Your task to perform on an android device: Open privacy settings Image 0: 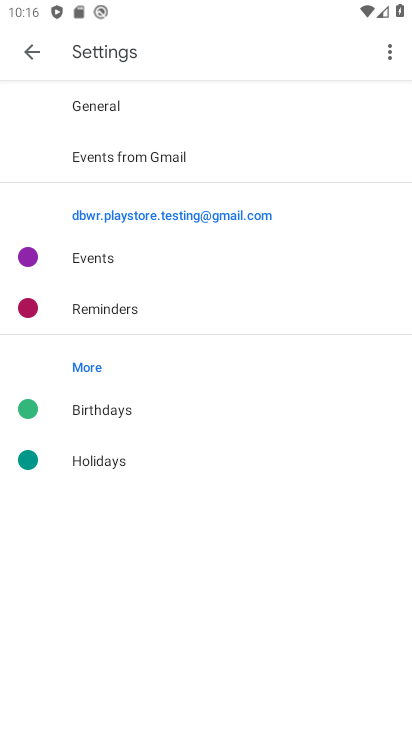
Step 0: press home button
Your task to perform on an android device: Open privacy settings Image 1: 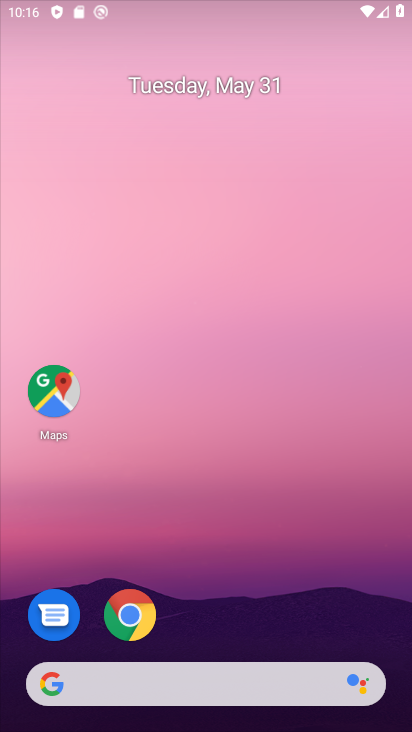
Step 1: drag from (317, 529) to (290, 127)
Your task to perform on an android device: Open privacy settings Image 2: 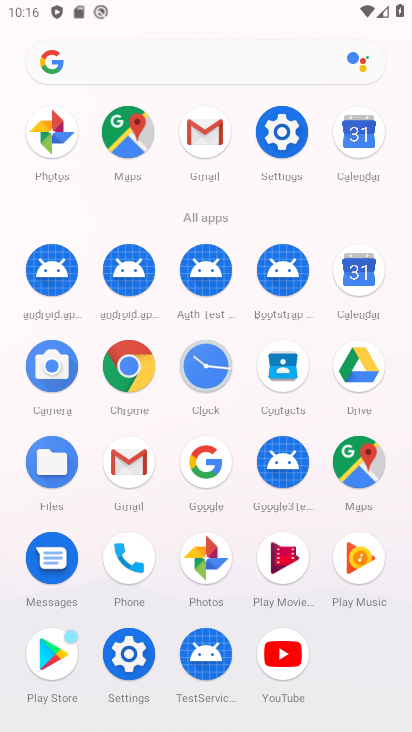
Step 2: click (133, 666)
Your task to perform on an android device: Open privacy settings Image 3: 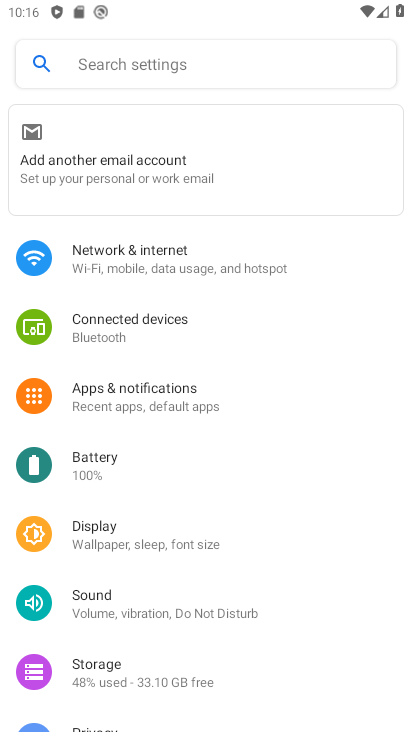
Step 3: drag from (225, 681) to (285, 439)
Your task to perform on an android device: Open privacy settings Image 4: 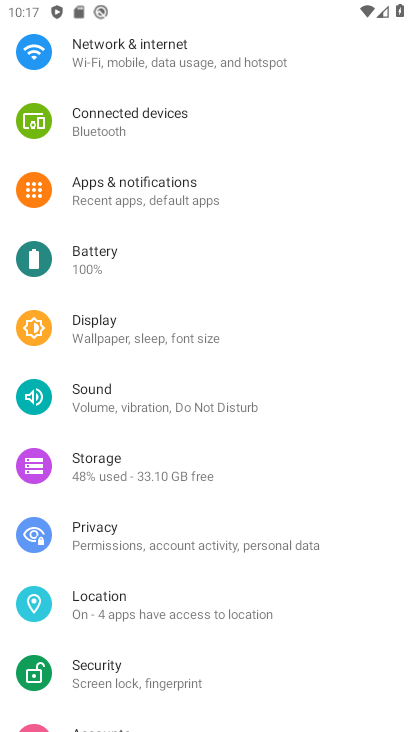
Step 4: click (156, 533)
Your task to perform on an android device: Open privacy settings Image 5: 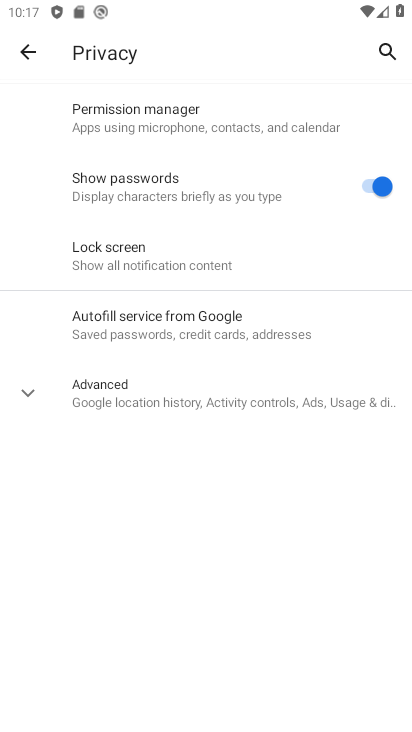
Step 5: task complete